Your task to perform on an android device: Clear all items from cart on ebay.com. Add usb-a to usb-b to the cart on ebay.com Image 0: 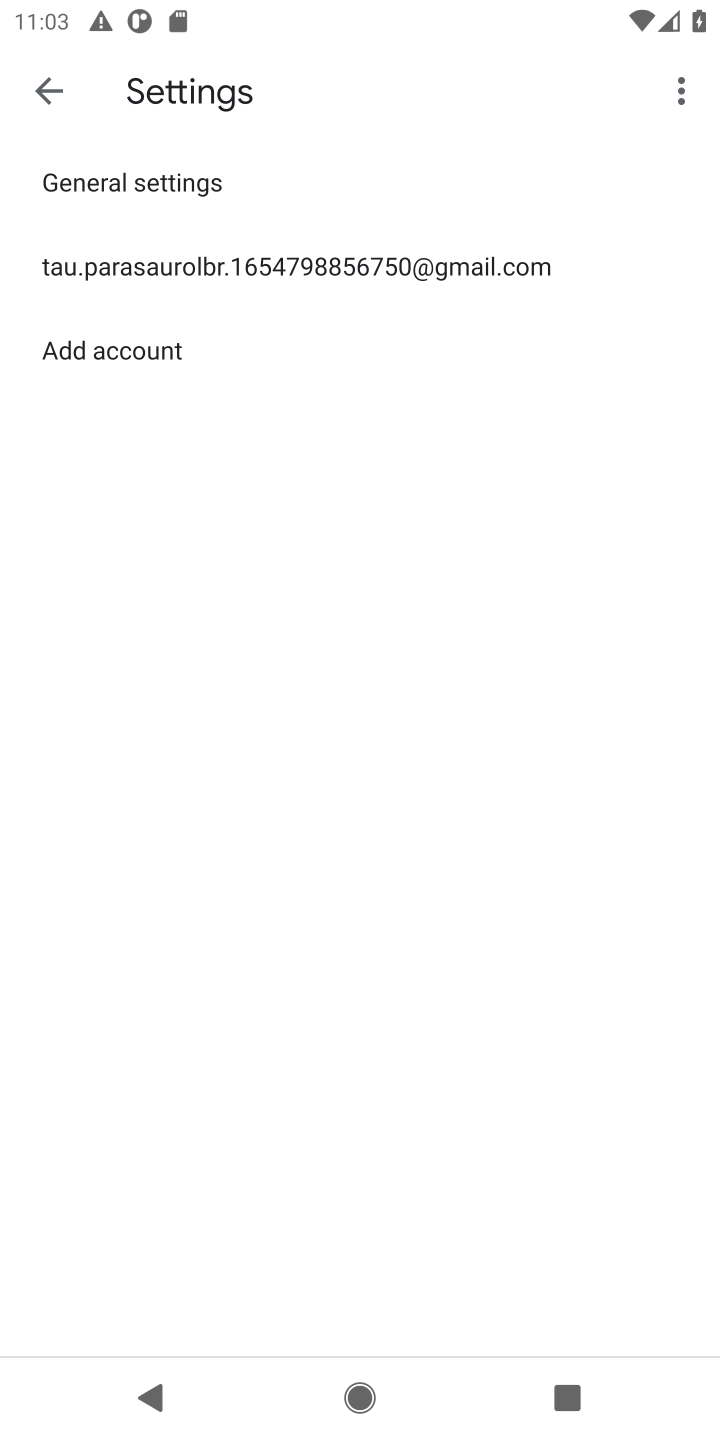
Step 0: press home button
Your task to perform on an android device: Clear all items from cart on ebay.com. Add usb-a to usb-b to the cart on ebay.com Image 1: 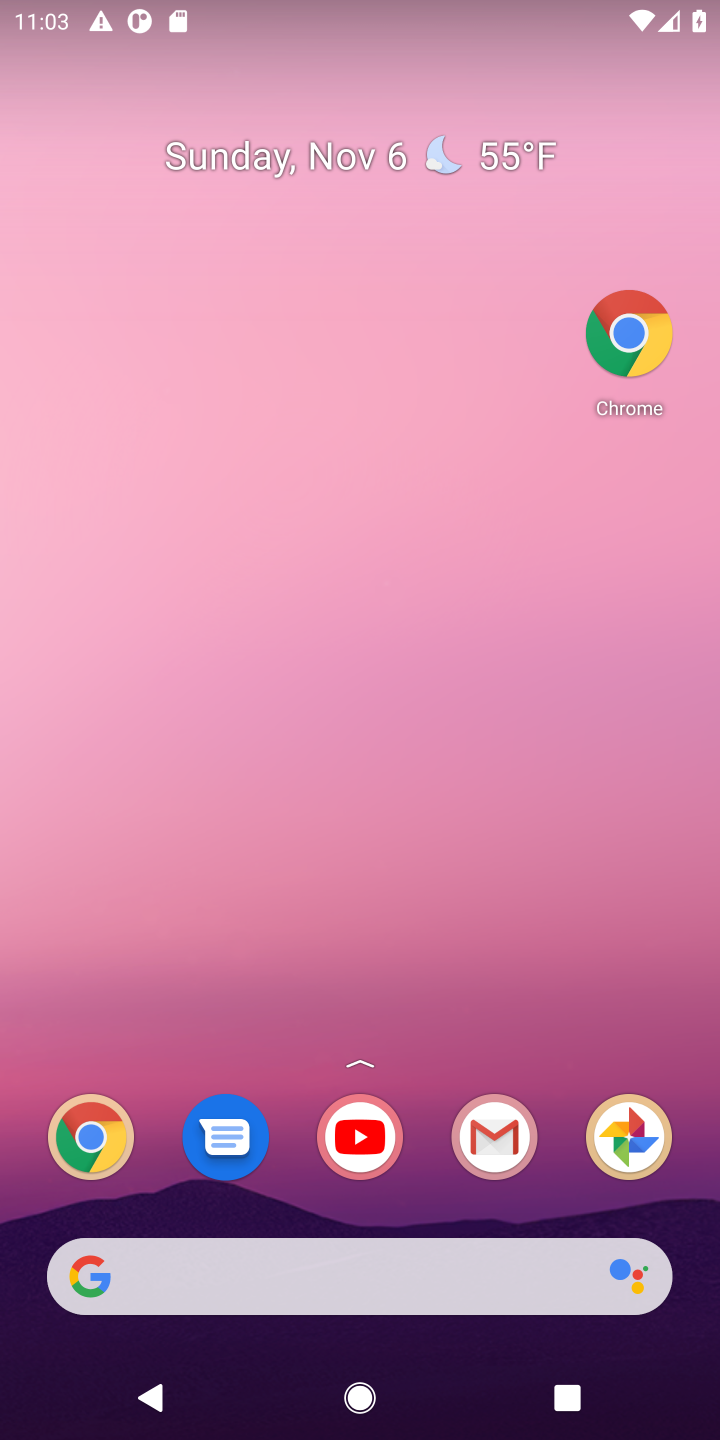
Step 1: drag from (419, 1111) to (411, 140)
Your task to perform on an android device: Clear all items from cart on ebay.com. Add usb-a to usb-b to the cart on ebay.com Image 2: 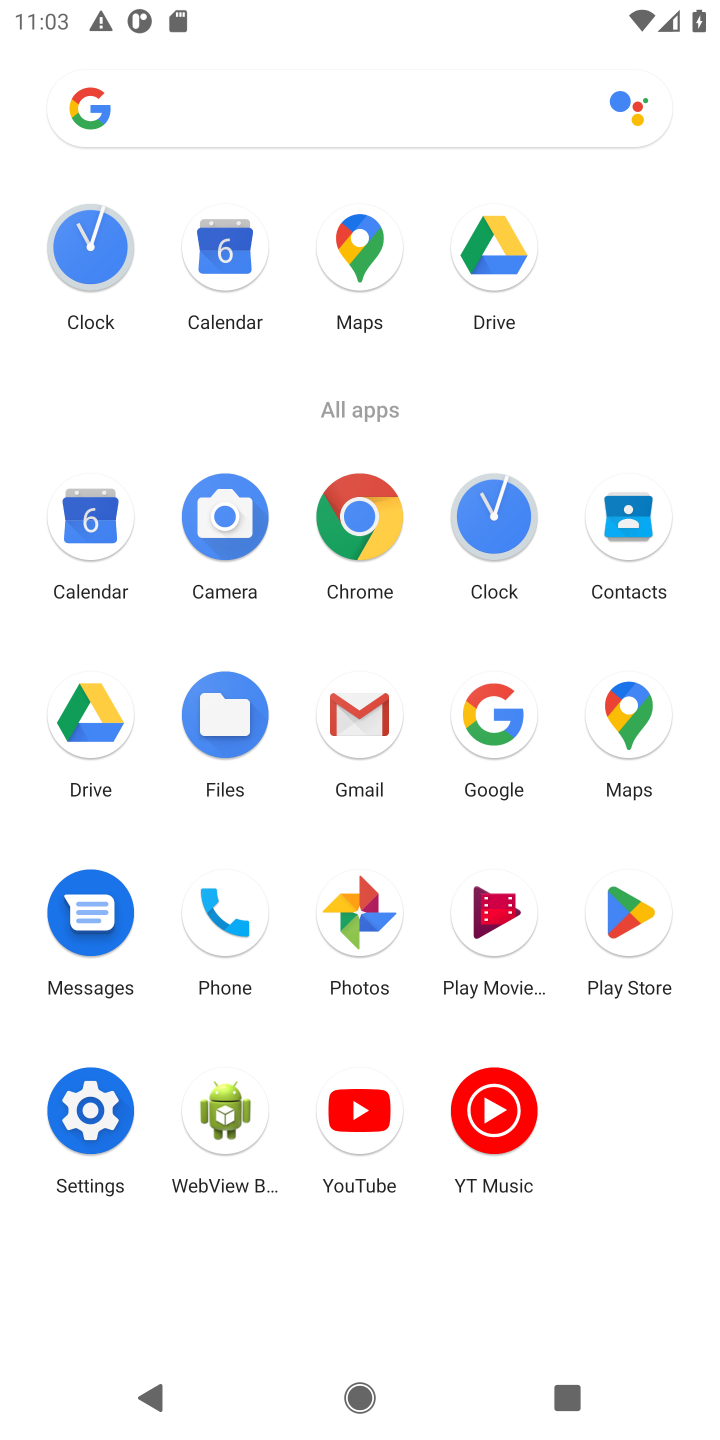
Step 2: click (354, 534)
Your task to perform on an android device: Clear all items from cart on ebay.com. Add usb-a to usb-b to the cart on ebay.com Image 3: 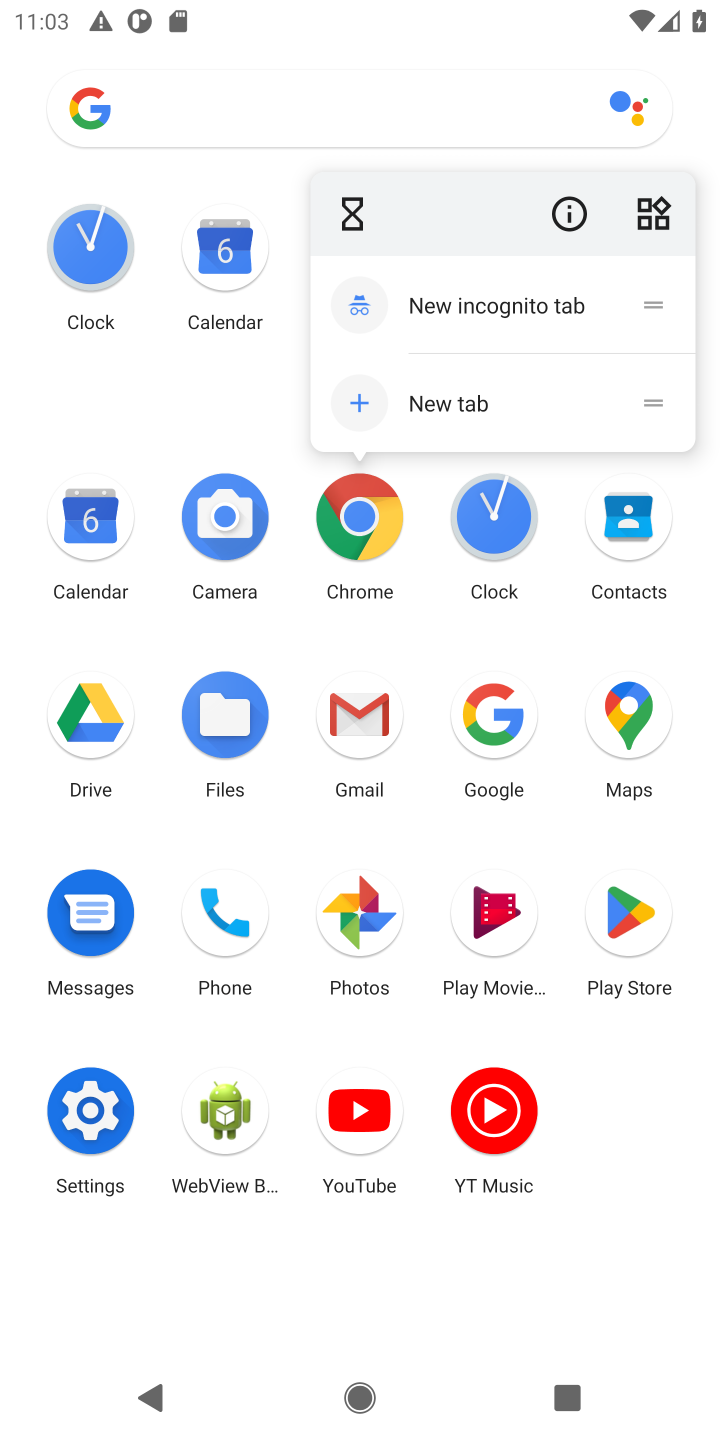
Step 3: click (354, 534)
Your task to perform on an android device: Clear all items from cart on ebay.com. Add usb-a to usb-b to the cart on ebay.com Image 4: 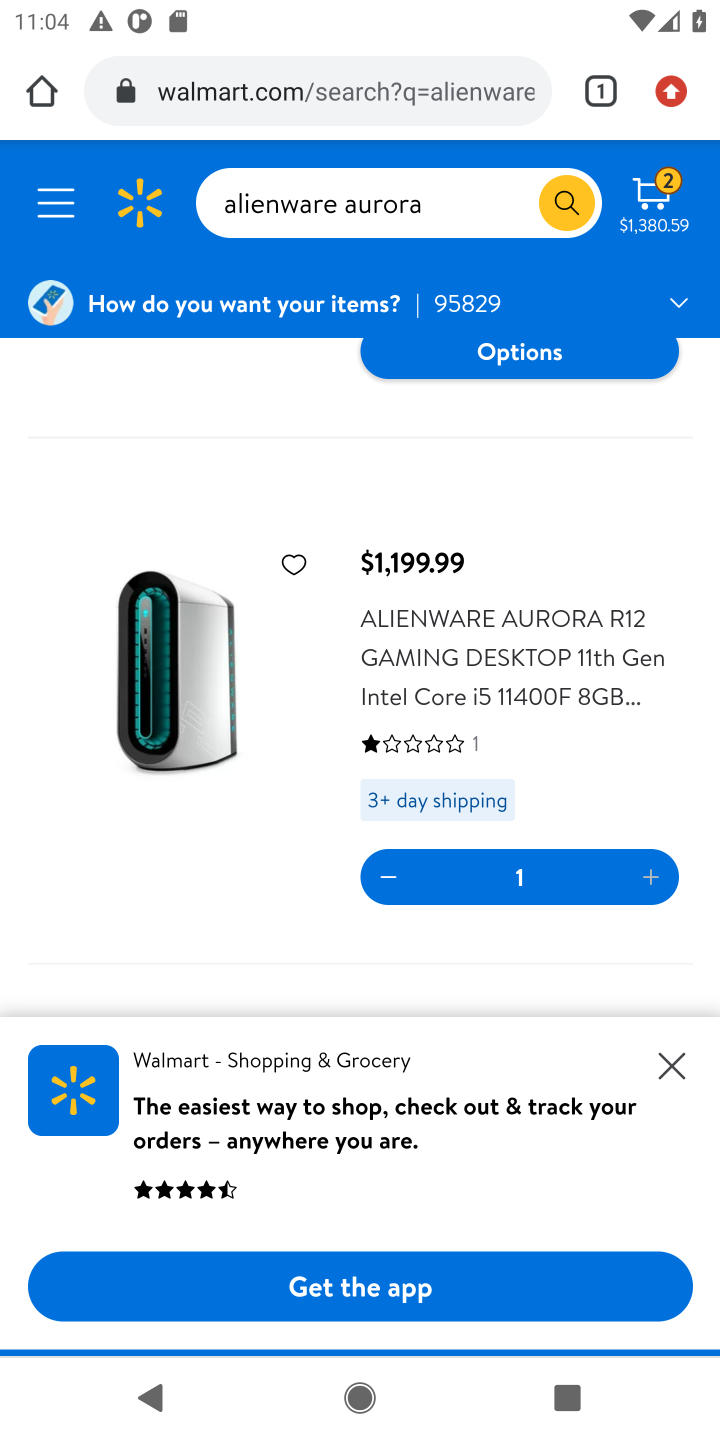
Step 4: click (382, 95)
Your task to perform on an android device: Clear all items from cart on ebay.com. Add usb-a to usb-b to the cart on ebay.com Image 5: 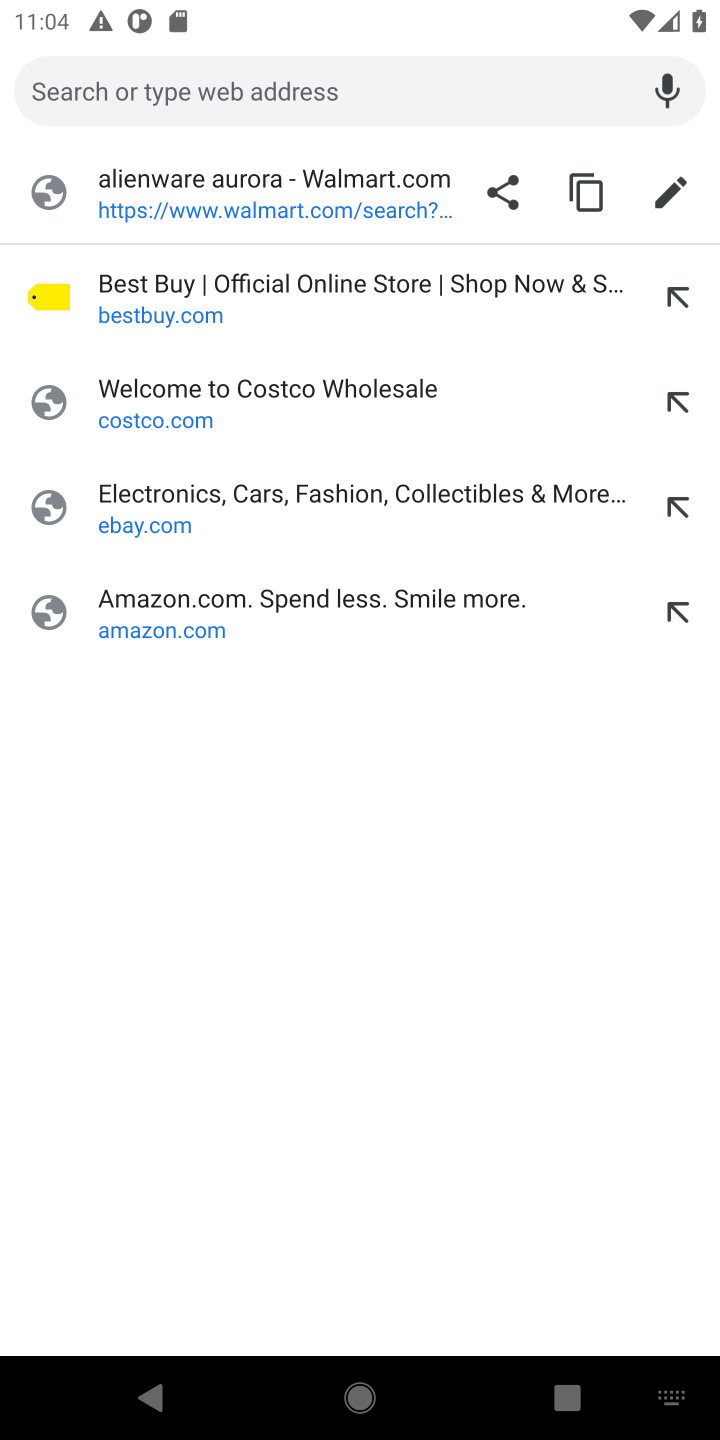
Step 5: type "ebay.com"
Your task to perform on an android device: Clear all items from cart on ebay.com. Add usb-a to usb-b to the cart on ebay.com Image 6: 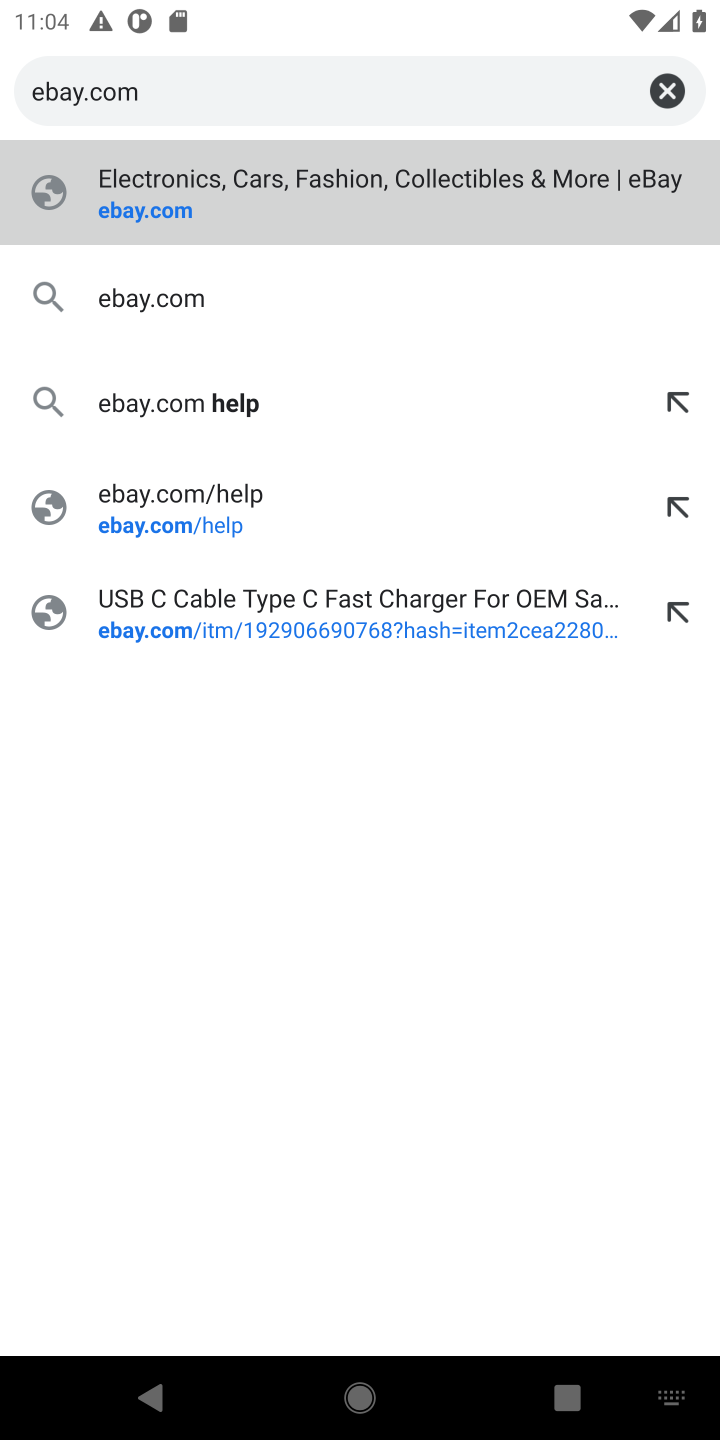
Step 6: press enter
Your task to perform on an android device: Clear all items from cart on ebay.com. Add usb-a to usb-b to the cart on ebay.com Image 7: 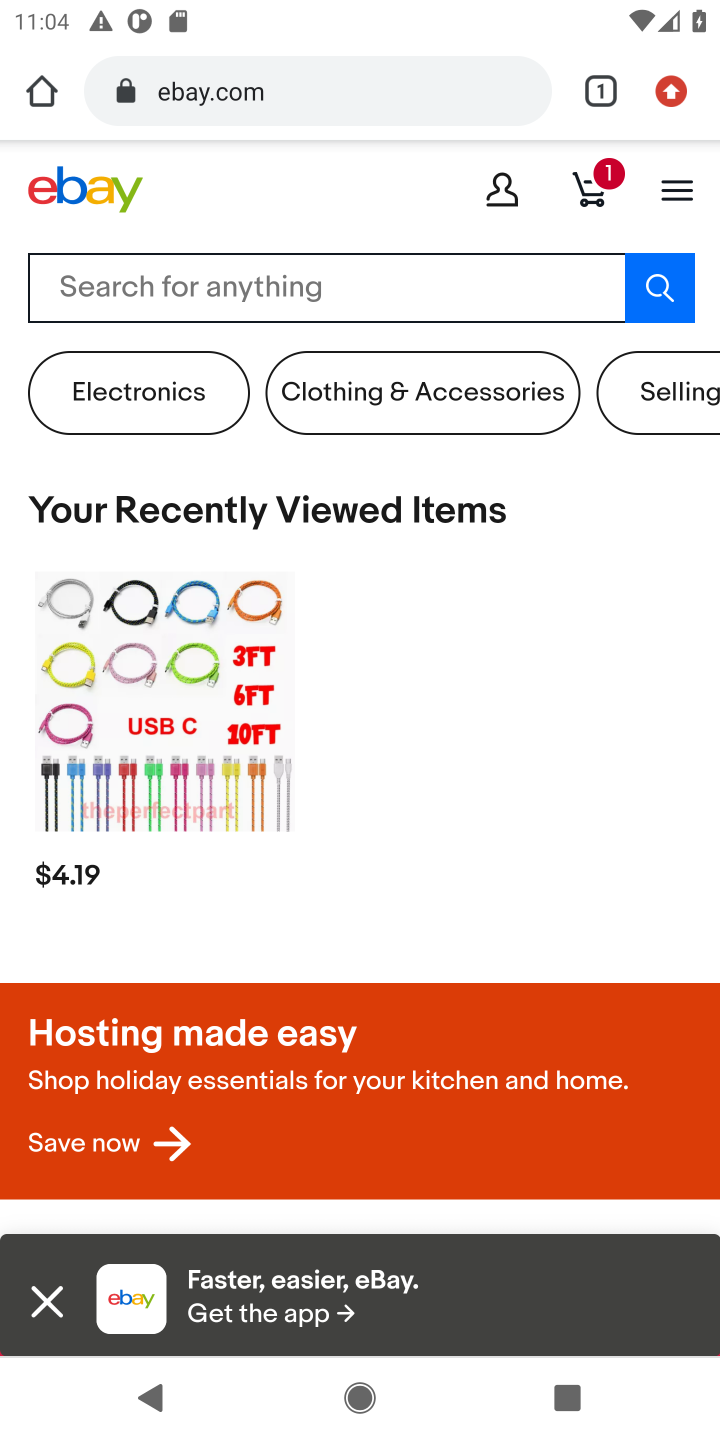
Step 7: click (610, 169)
Your task to perform on an android device: Clear all items from cart on ebay.com. Add usb-a to usb-b to the cart on ebay.com Image 8: 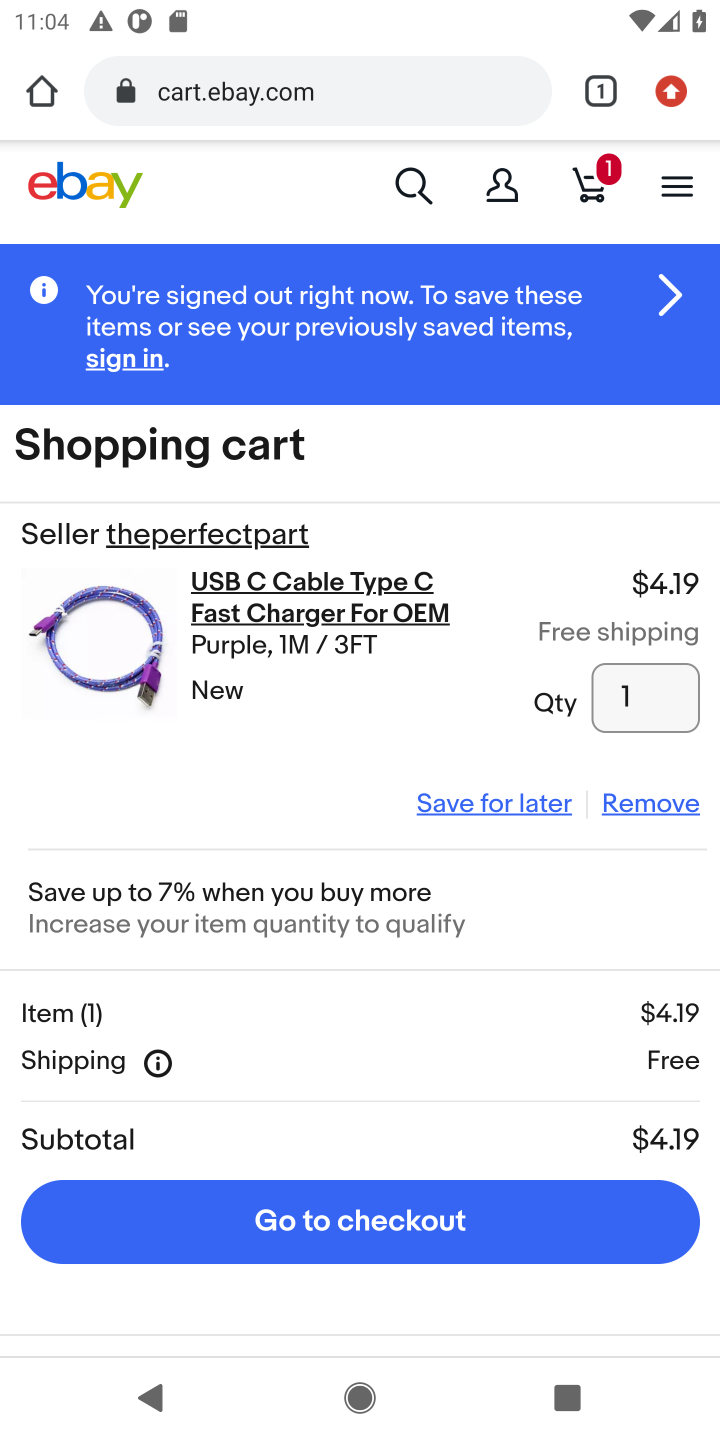
Step 8: click (638, 790)
Your task to perform on an android device: Clear all items from cart on ebay.com. Add usb-a to usb-b to the cart on ebay.com Image 9: 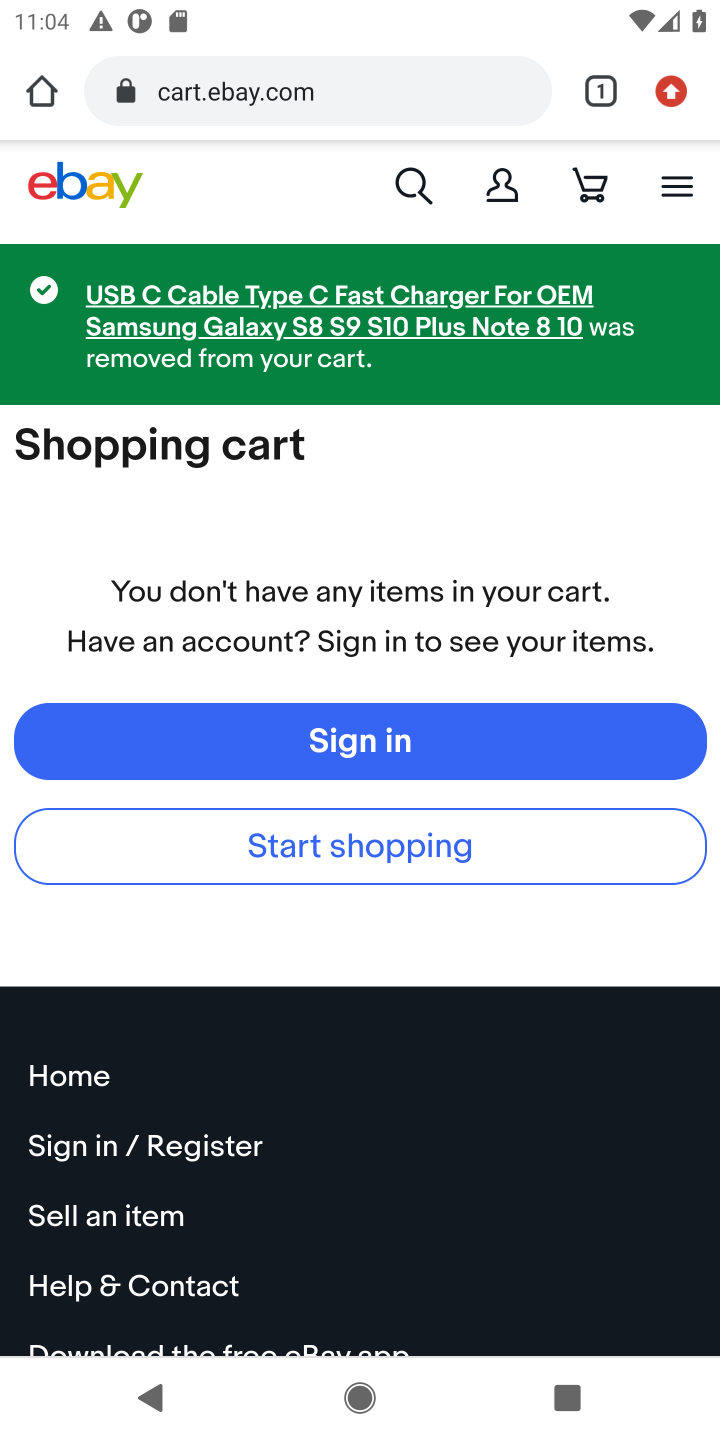
Step 9: click (420, 191)
Your task to perform on an android device: Clear all items from cart on ebay.com. Add usb-a to usb-b to the cart on ebay.com Image 10: 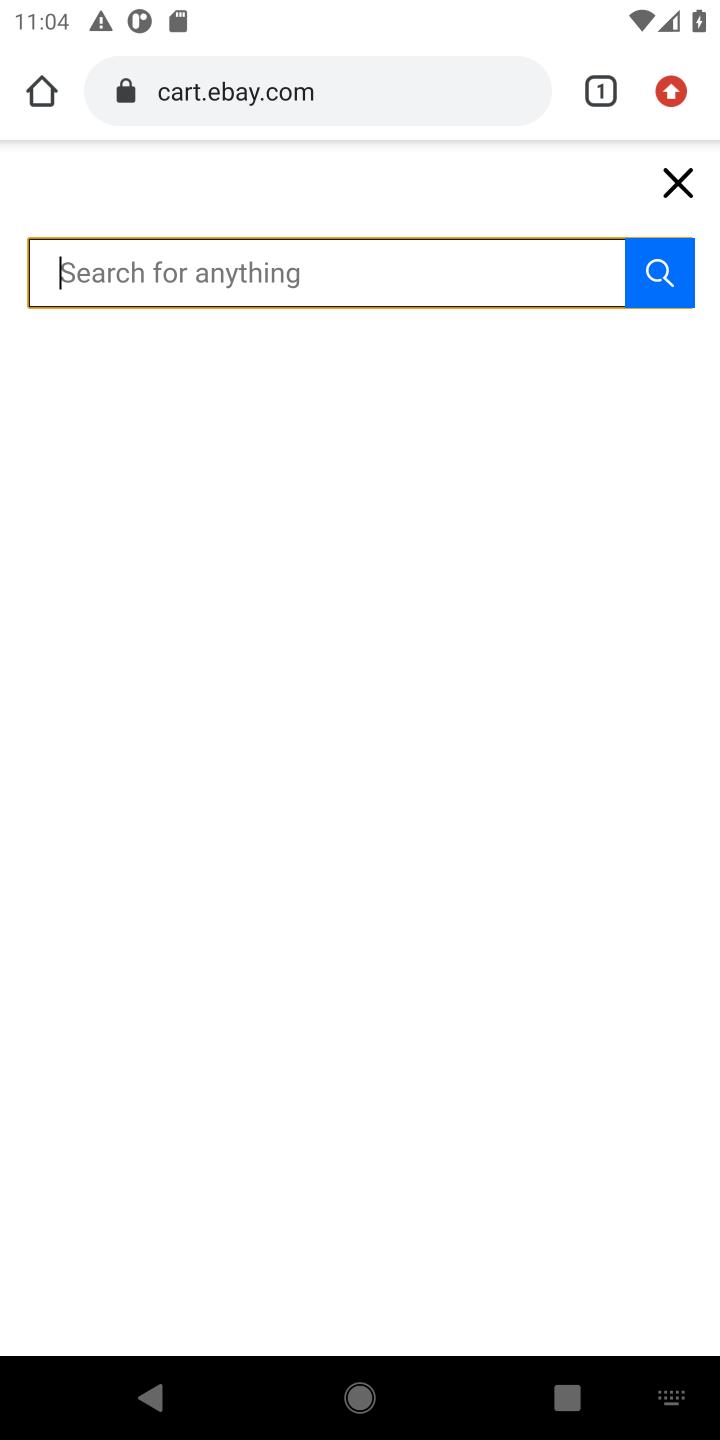
Step 10: type "usb-a to usb-b"
Your task to perform on an android device: Clear all items from cart on ebay.com. Add usb-a to usb-b to the cart on ebay.com Image 11: 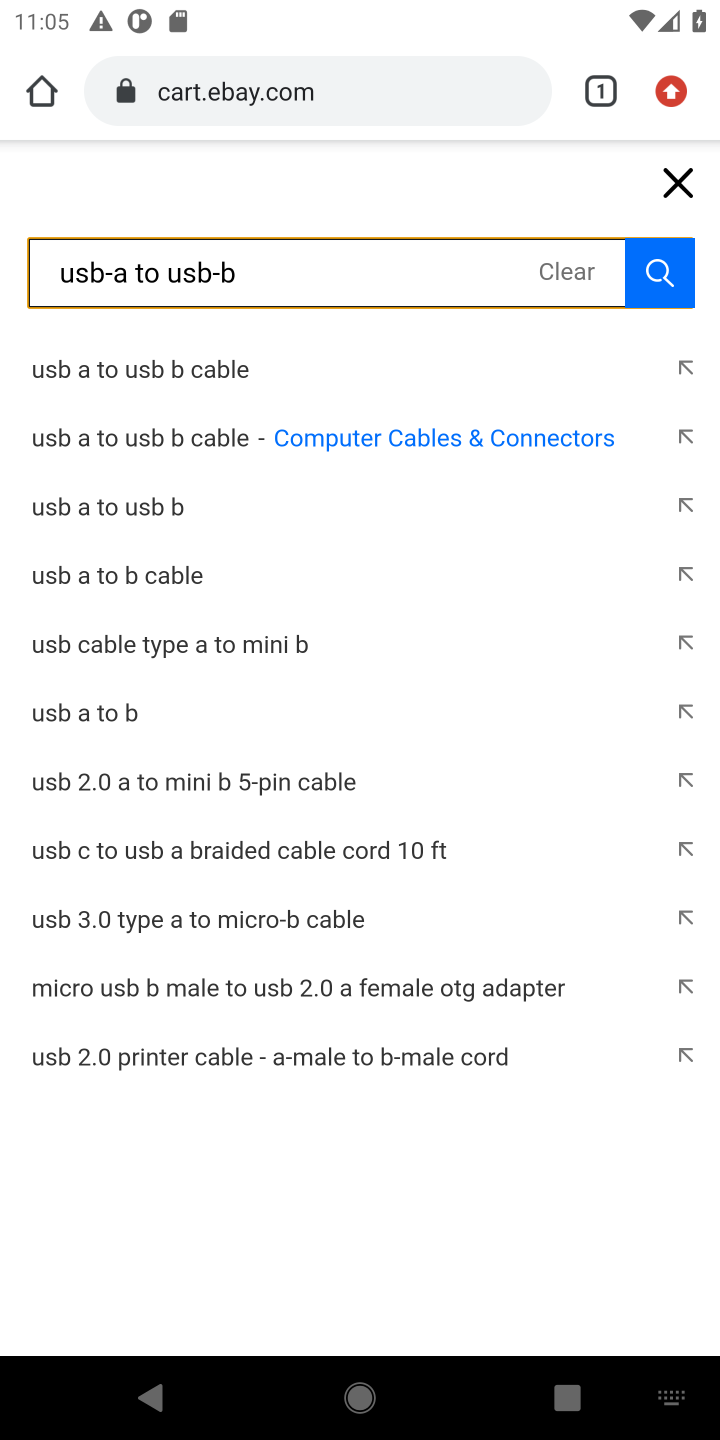
Step 11: press enter
Your task to perform on an android device: Clear all items from cart on ebay.com. Add usb-a to usb-b to the cart on ebay.com Image 12: 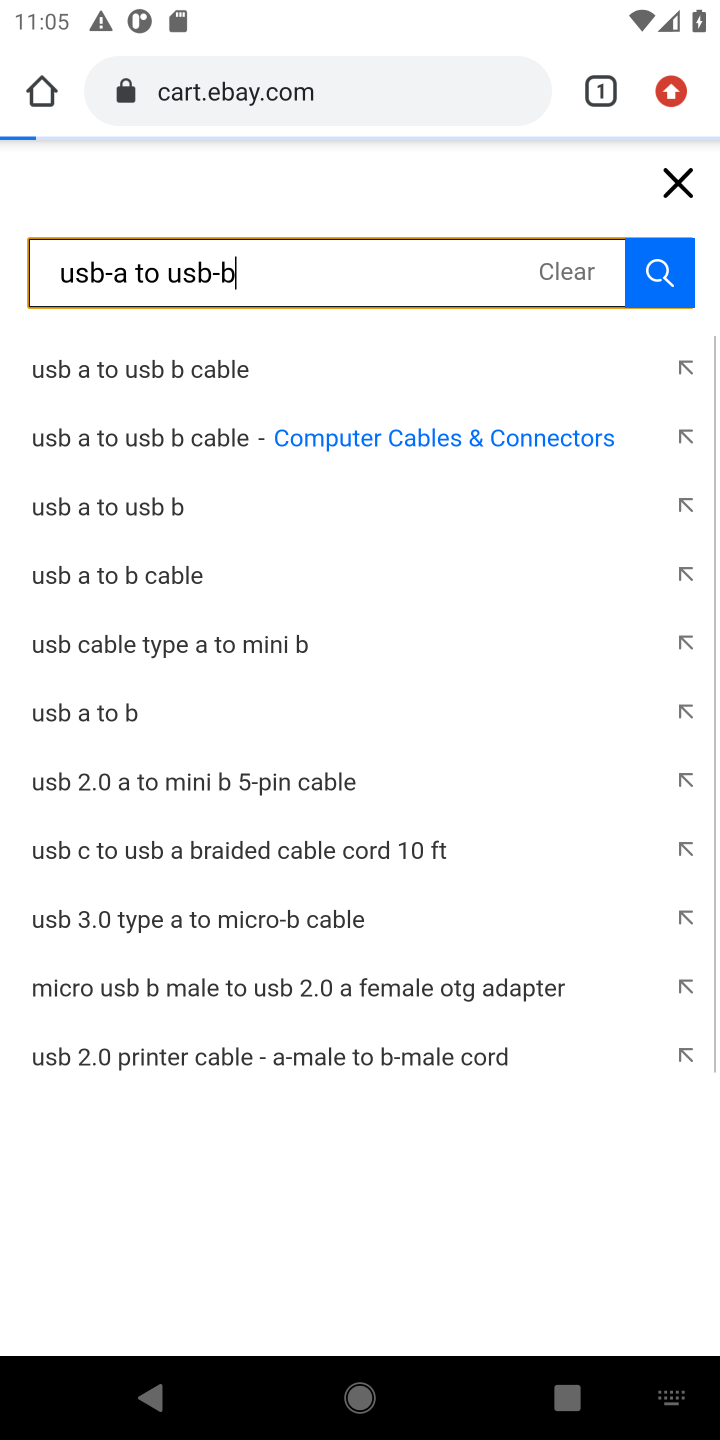
Step 12: press enter
Your task to perform on an android device: Clear all items from cart on ebay.com. Add usb-a to usb-b to the cart on ebay.com Image 13: 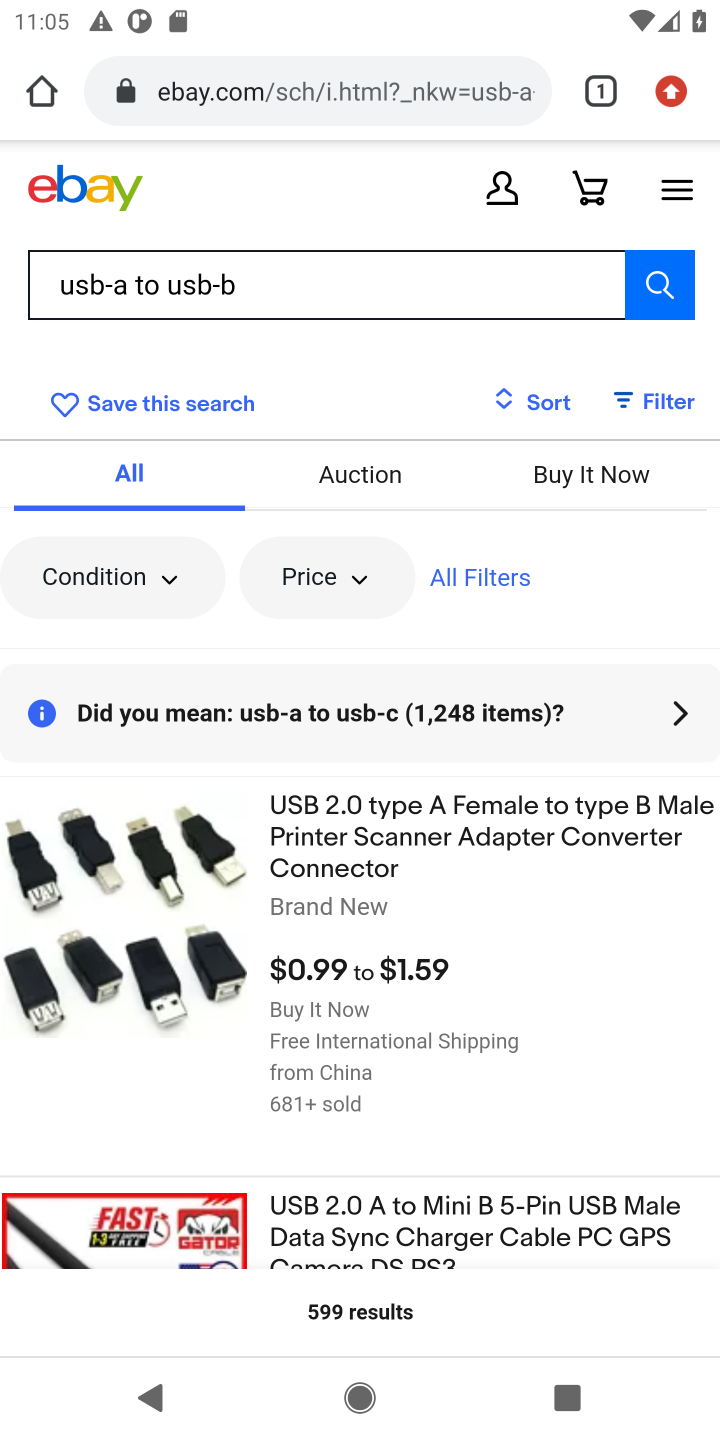
Step 13: drag from (398, 1049) to (397, 850)
Your task to perform on an android device: Clear all items from cart on ebay.com. Add usb-a to usb-b to the cart on ebay.com Image 14: 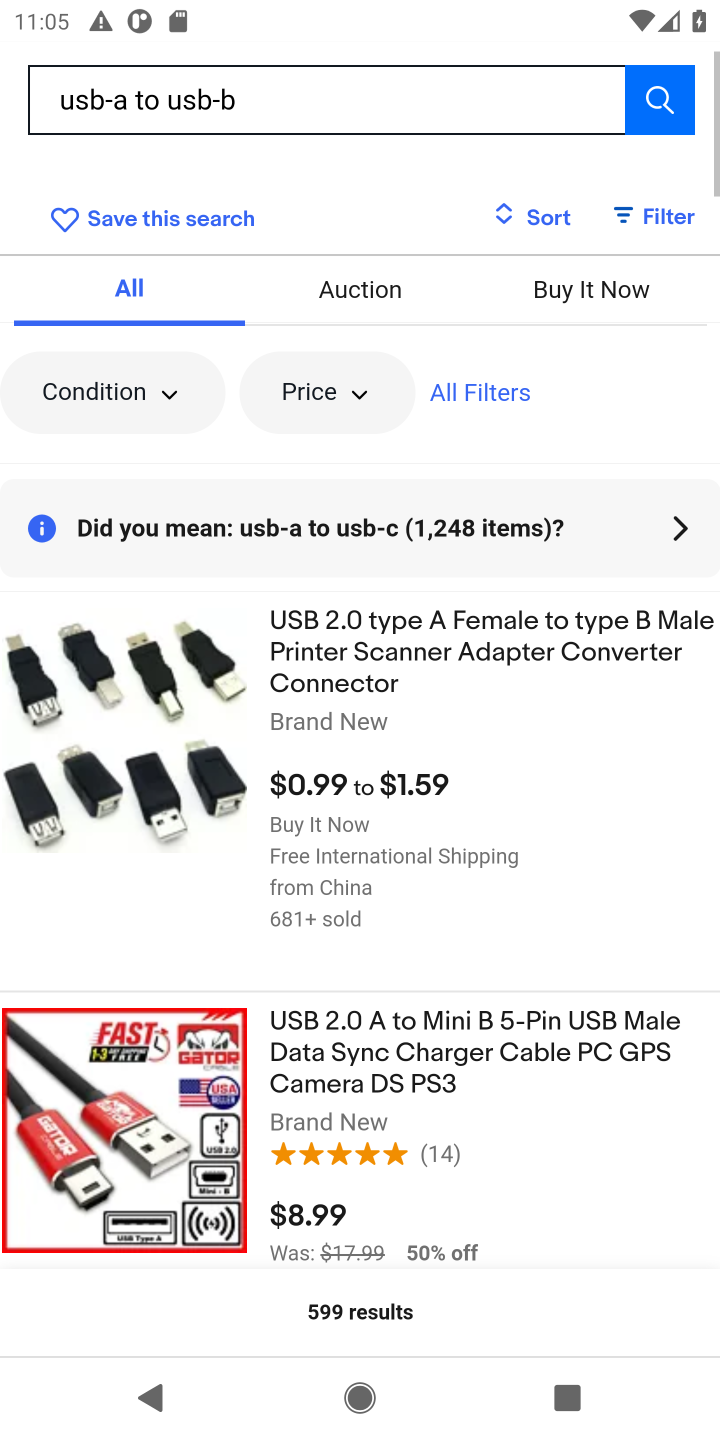
Step 14: click (117, 858)
Your task to perform on an android device: Clear all items from cart on ebay.com. Add usb-a to usb-b to the cart on ebay.com Image 15: 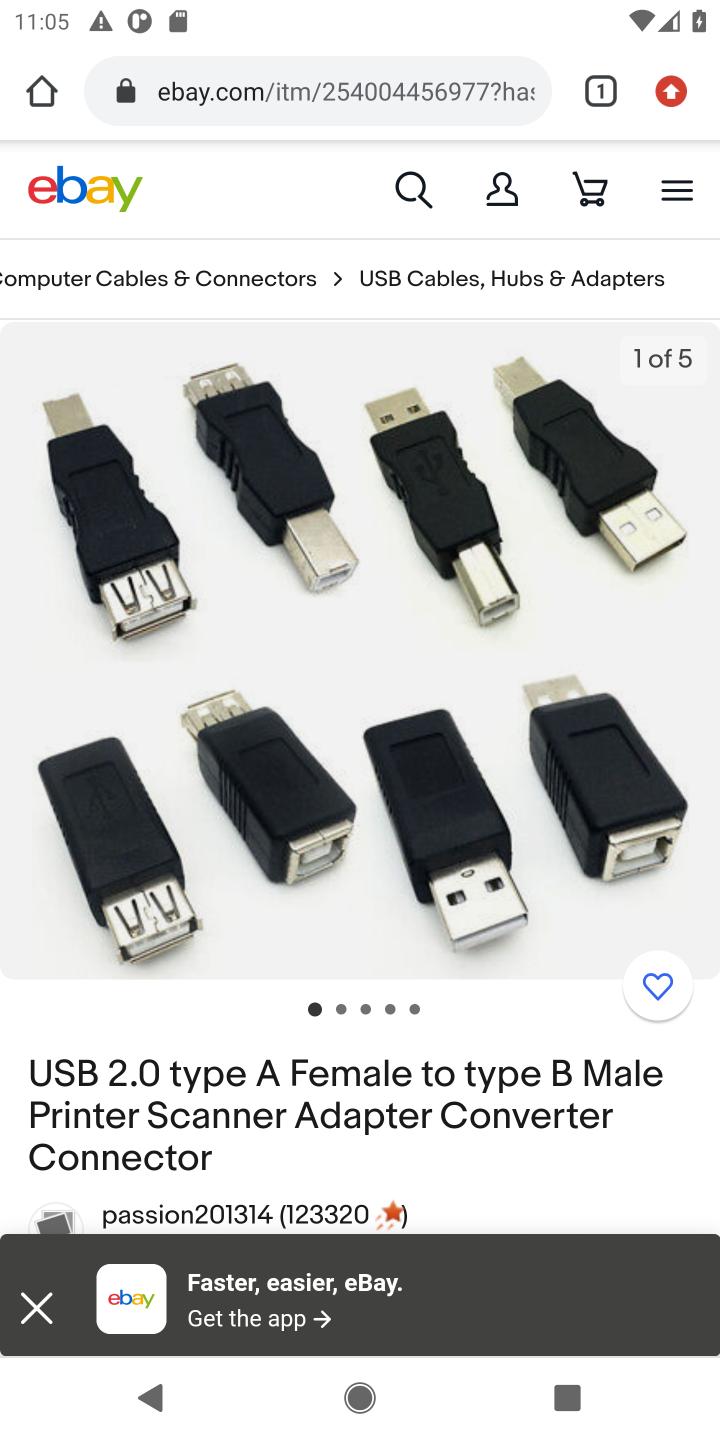
Step 15: drag from (153, 1009) to (307, 486)
Your task to perform on an android device: Clear all items from cart on ebay.com. Add usb-a to usb-b to the cart on ebay.com Image 16: 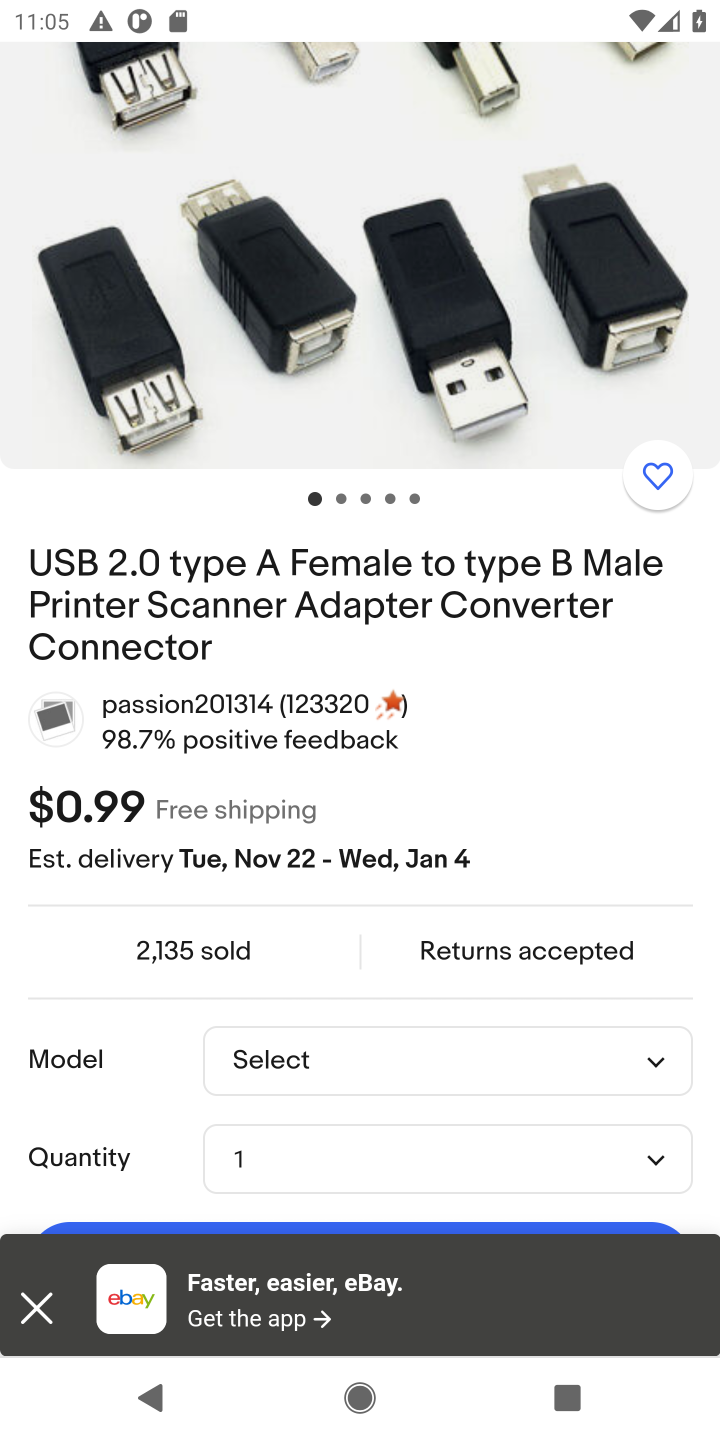
Step 16: drag from (288, 705) to (323, 487)
Your task to perform on an android device: Clear all items from cart on ebay.com. Add usb-a to usb-b to the cart on ebay.com Image 17: 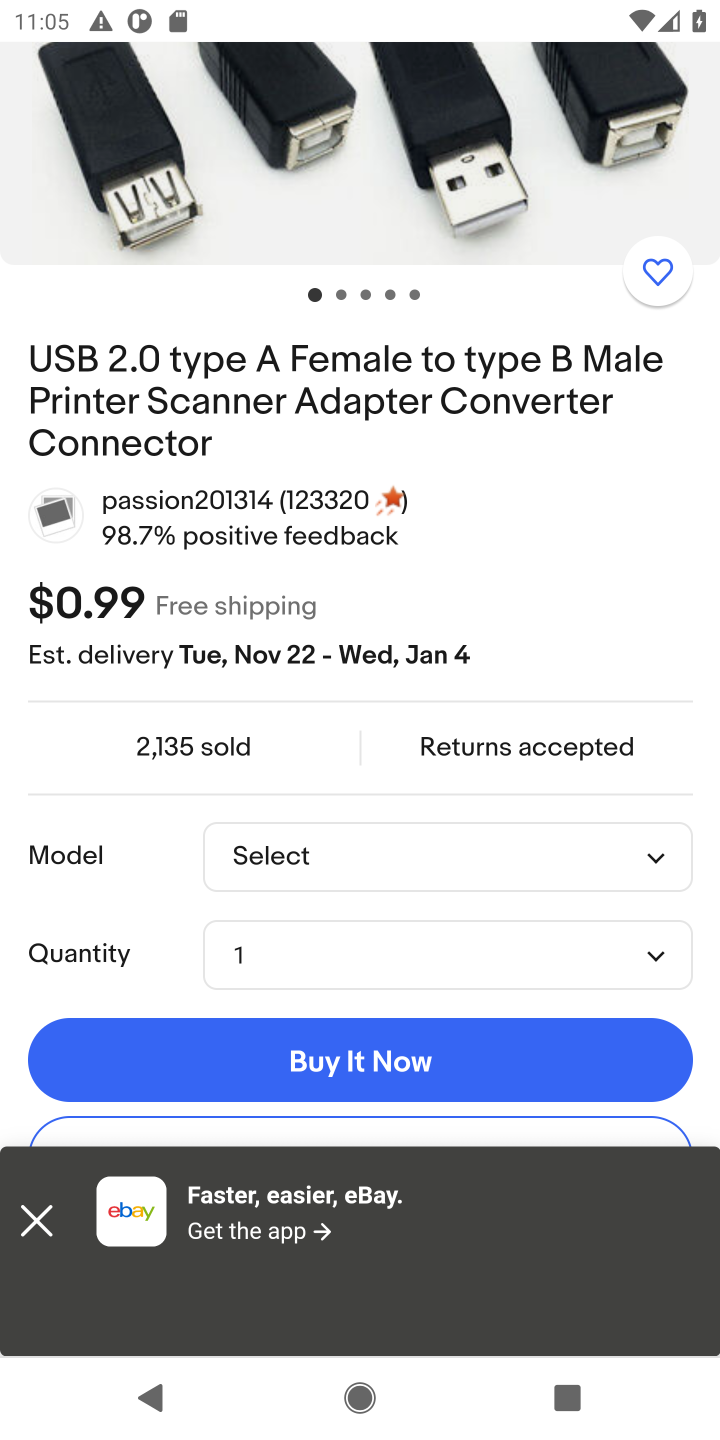
Step 17: drag from (429, 981) to (463, 539)
Your task to perform on an android device: Clear all items from cart on ebay.com. Add usb-a to usb-b to the cart on ebay.com Image 18: 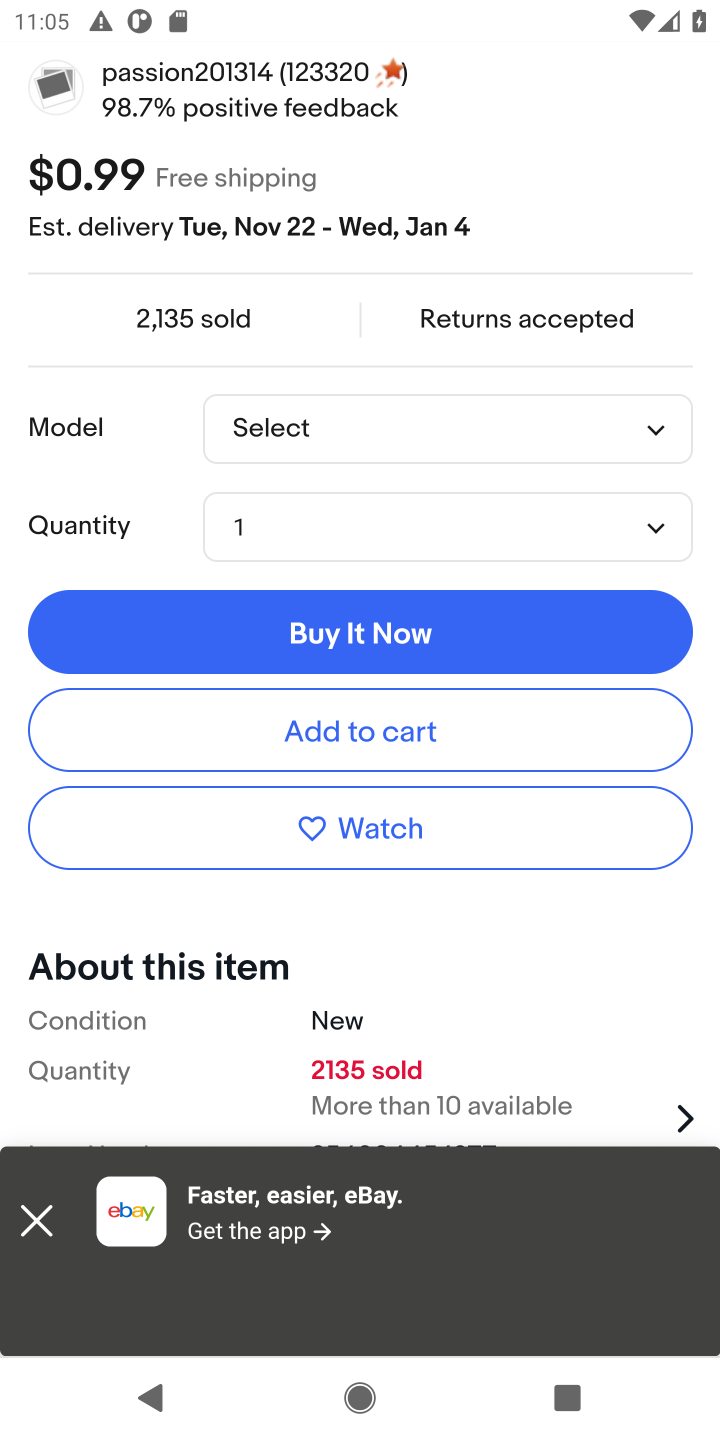
Step 18: click (388, 731)
Your task to perform on an android device: Clear all items from cart on ebay.com. Add usb-a to usb-b to the cart on ebay.com Image 19: 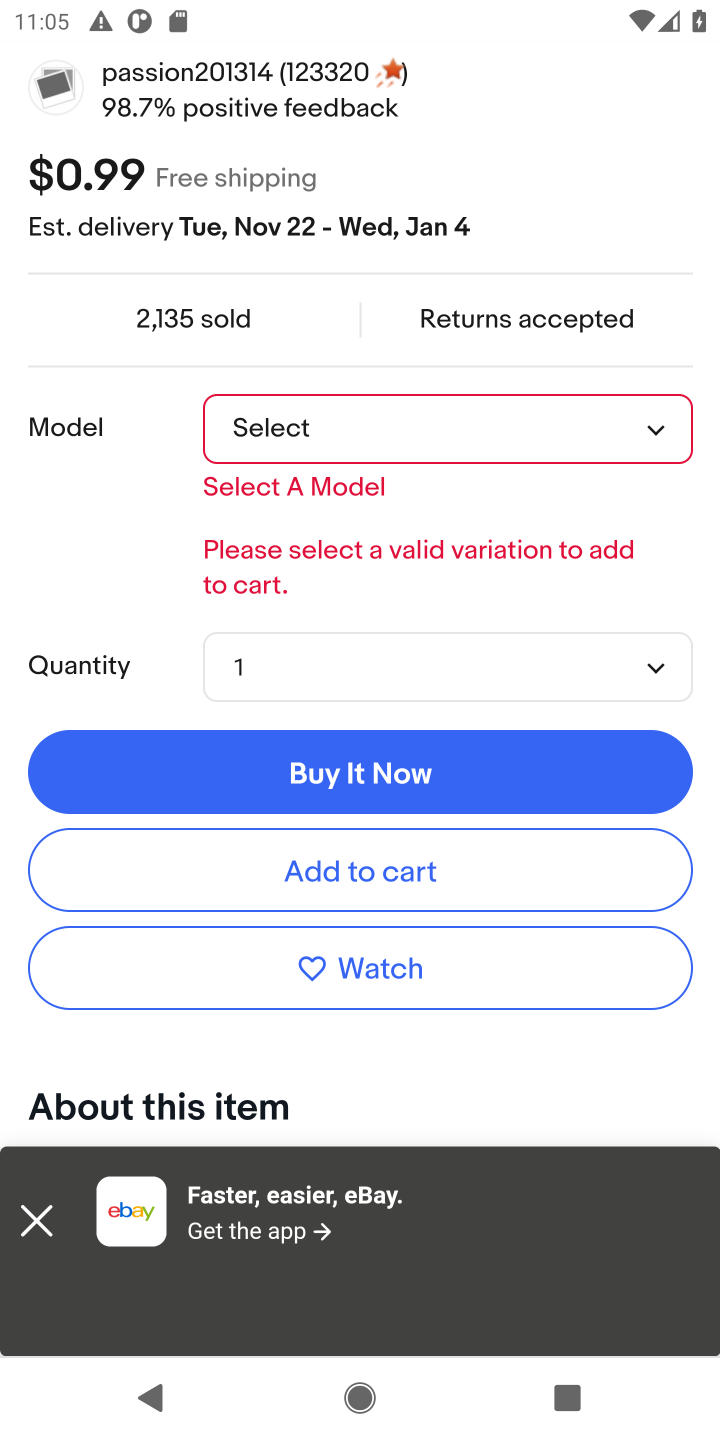
Step 19: click (395, 469)
Your task to perform on an android device: Clear all items from cart on ebay.com. Add usb-a to usb-b to the cart on ebay.com Image 20: 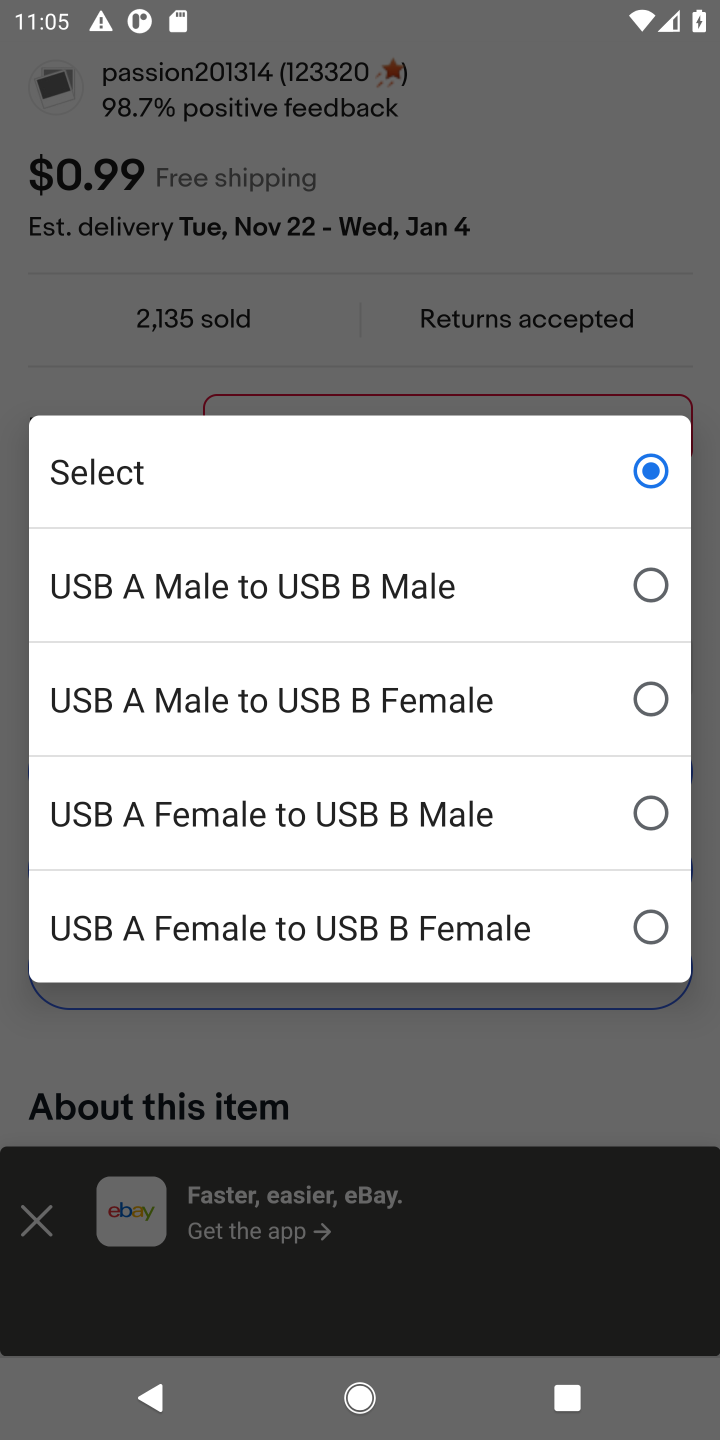
Step 20: click (502, 583)
Your task to perform on an android device: Clear all items from cart on ebay.com. Add usb-a to usb-b to the cart on ebay.com Image 21: 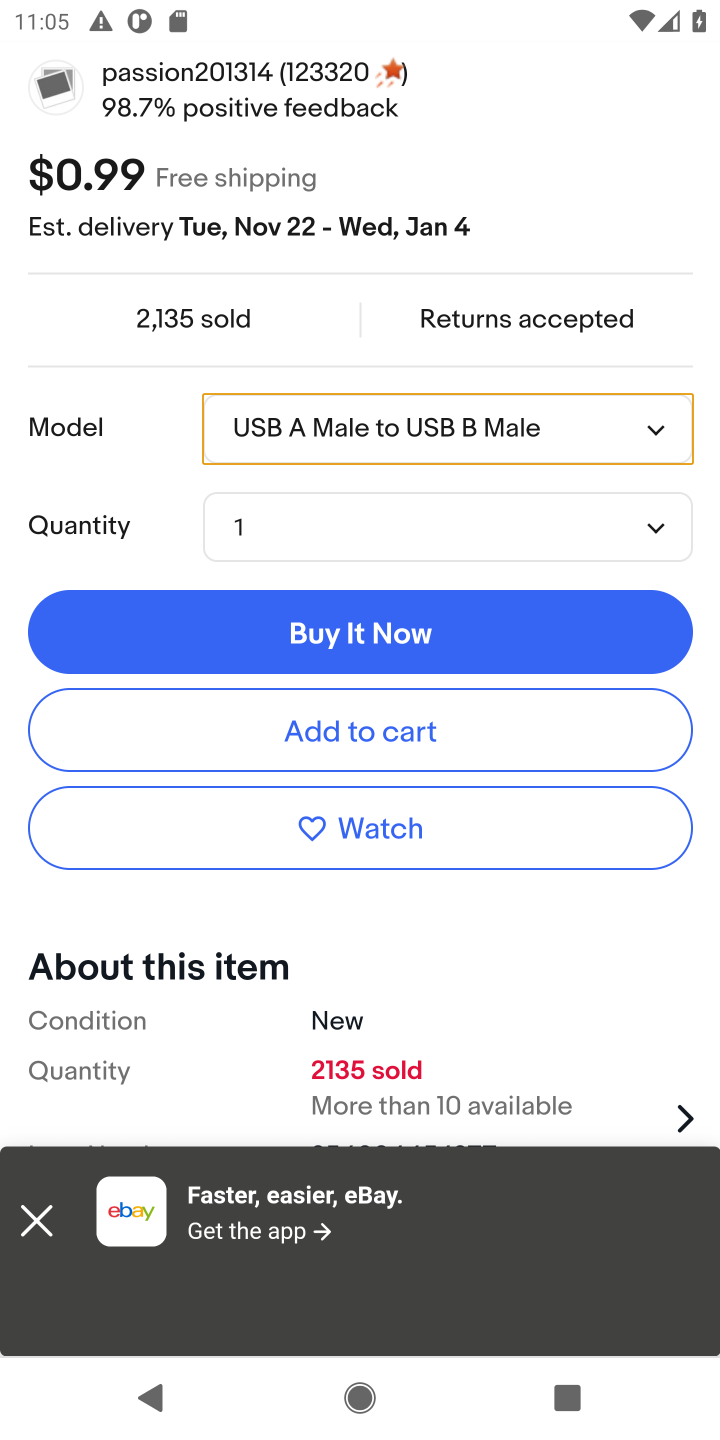
Step 21: click (515, 727)
Your task to perform on an android device: Clear all items from cart on ebay.com. Add usb-a to usb-b to the cart on ebay.com Image 22: 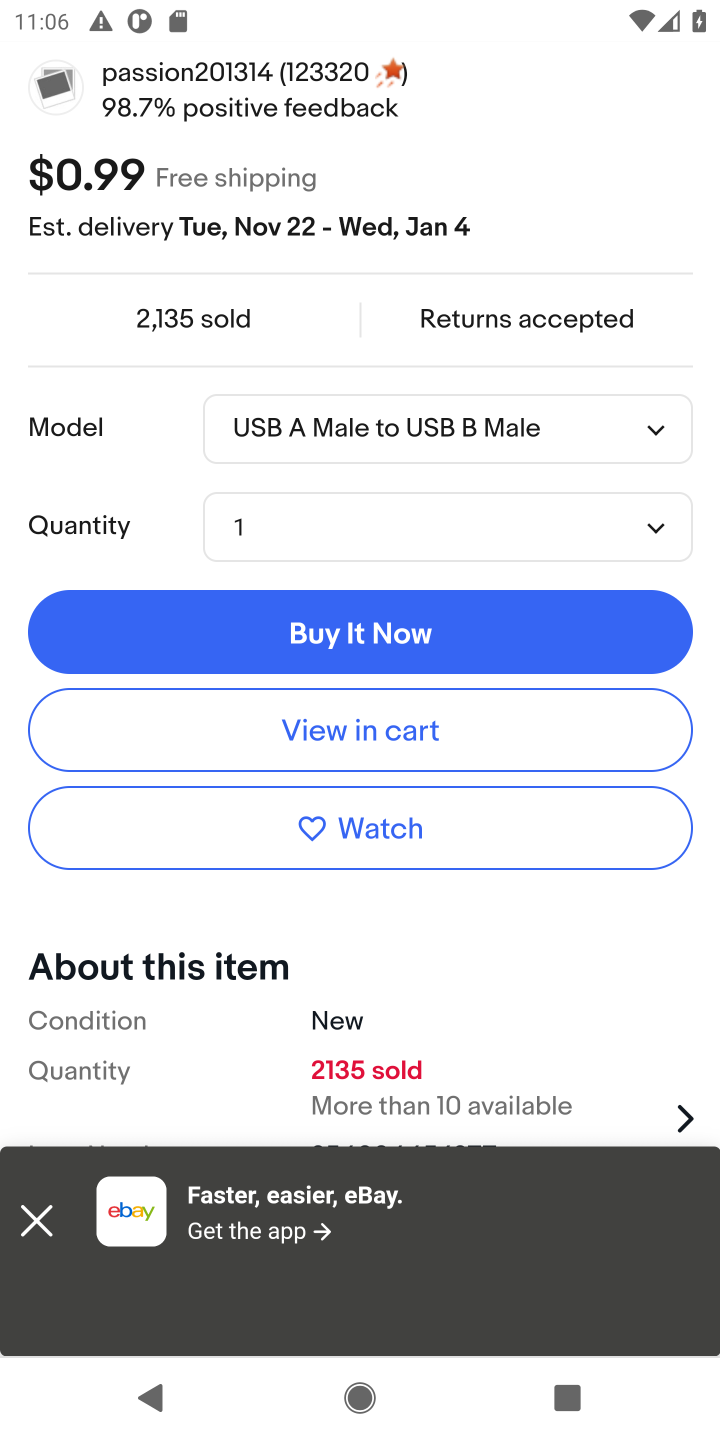
Step 22: task complete